Your task to perform on an android device: Open the calendar and show me this week's events? Image 0: 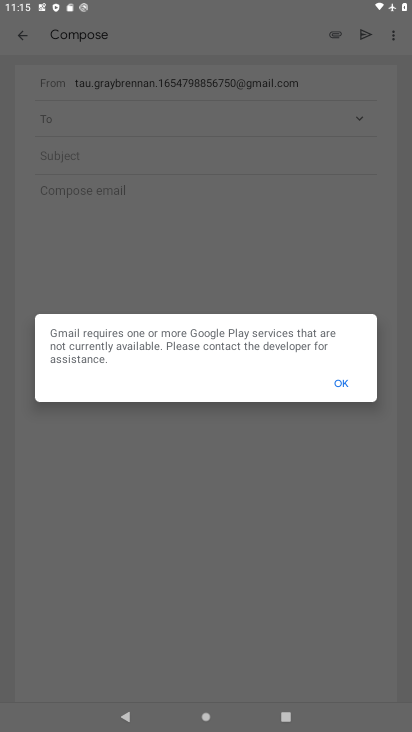
Step 0: task complete